Your task to perform on an android device: Toggle the flashlight Image 0: 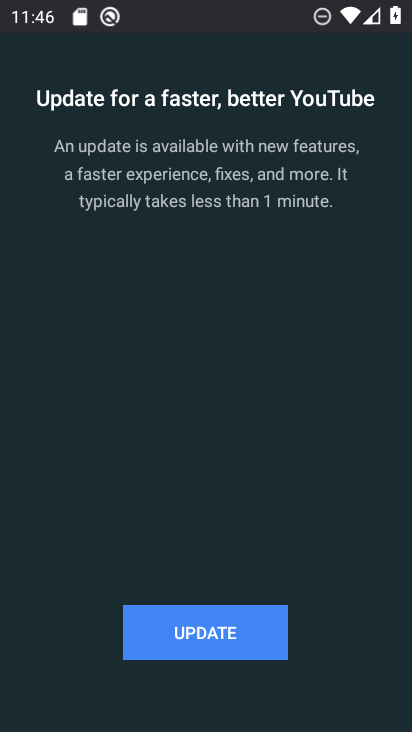
Step 0: press home button
Your task to perform on an android device: Toggle the flashlight Image 1: 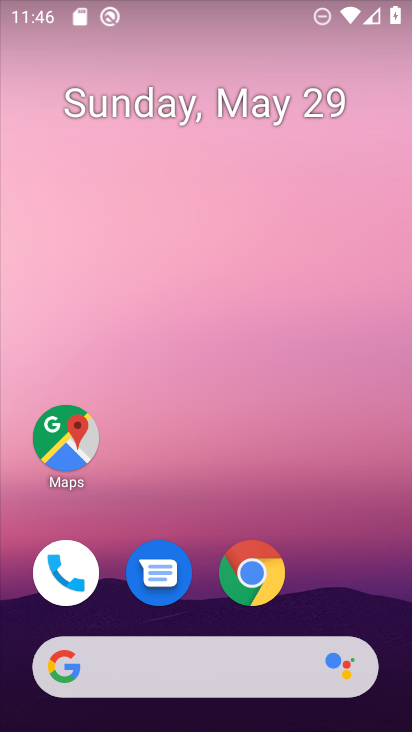
Step 1: task complete